Your task to perform on an android device: turn off improve location accuracy Image 0: 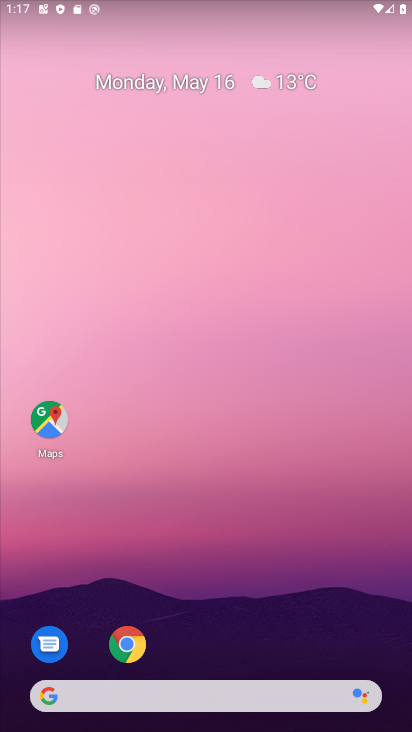
Step 0: drag from (241, 554) to (277, 94)
Your task to perform on an android device: turn off improve location accuracy Image 1: 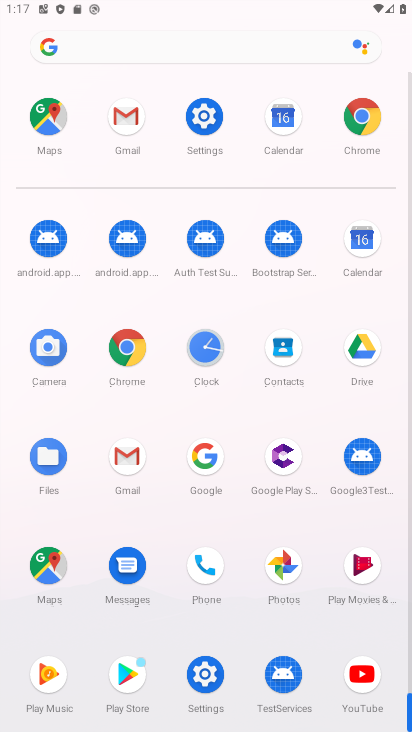
Step 1: click (212, 140)
Your task to perform on an android device: turn off improve location accuracy Image 2: 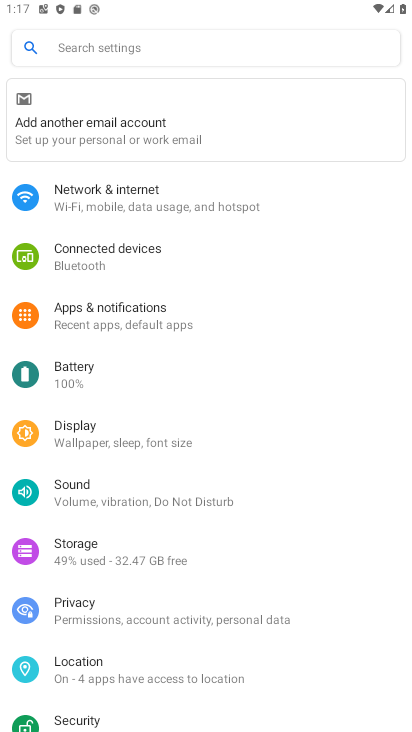
Step 2: drag from (170, 547) to (192, 316)
Your task to perform on an android device: turn off improve location accuracy Image 3: 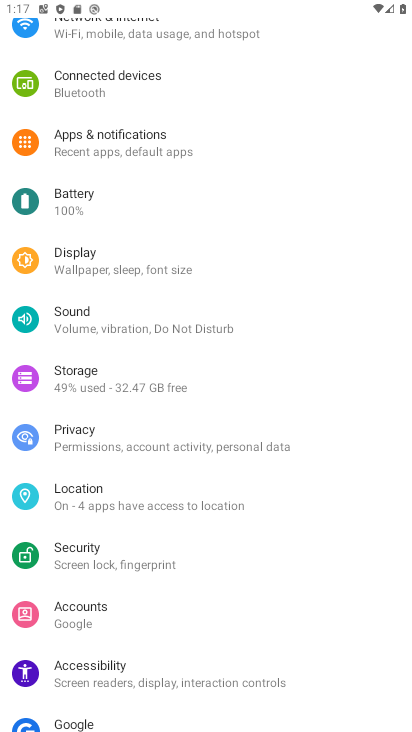
Step 3: click (141, 505)
Your task to perform on an android device: turn off improve location accuracy Image 4: 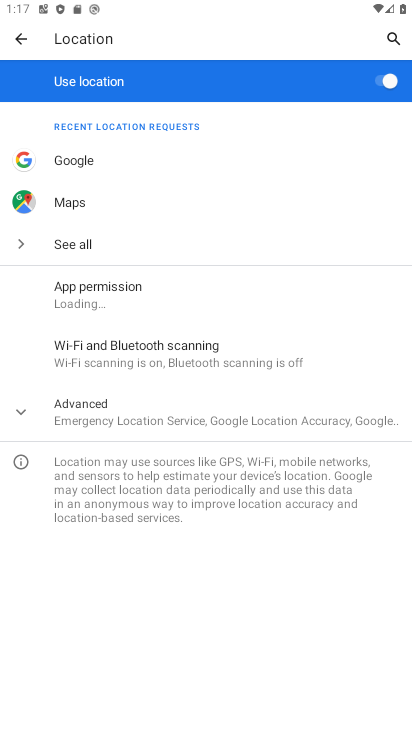
Step 4: click (152, 416)
Your task to perform on an android device: turn off improve location accuracy Image 5: 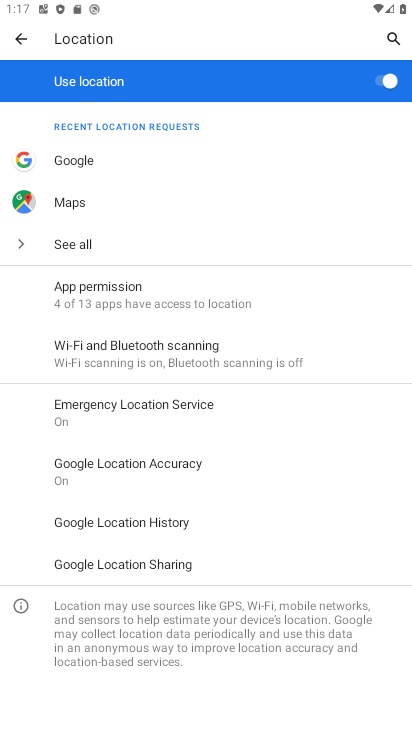
Step 5: click (179, 461)
Your task to perform on an android device: turn off improve location accuracy Image 6: 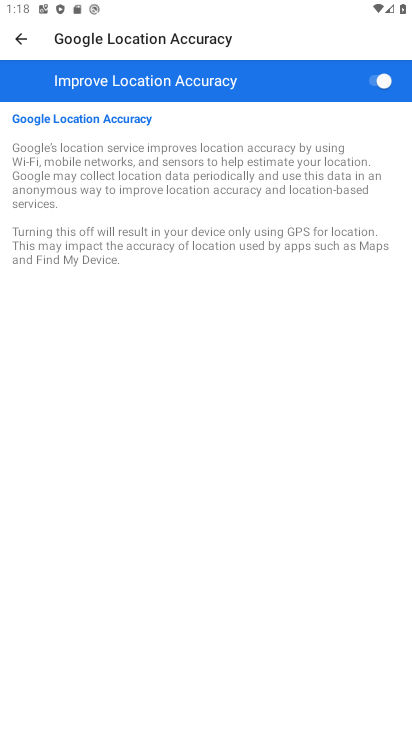
Step 6: click (375, 79)
Your task to perform on an android device: turn off improve location accuracy Image 7: 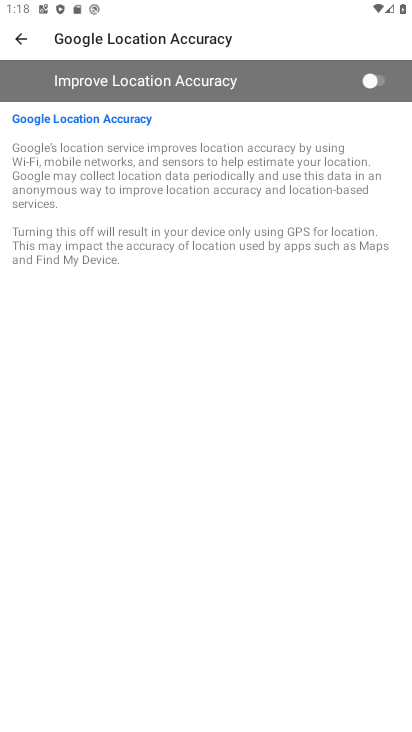
Step 7: task complete